Your task to perform on an android device: Find coffee shops on Maps Image 0: 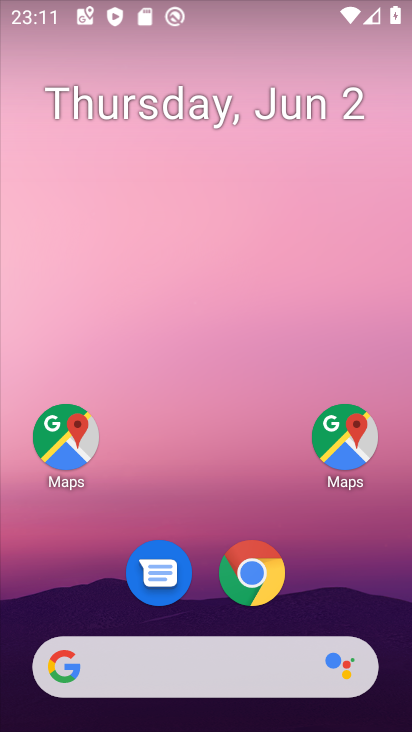
Step 0: click (336, 452)
Your task to perform on an android device: Find coffee shops on Maps Image 1: 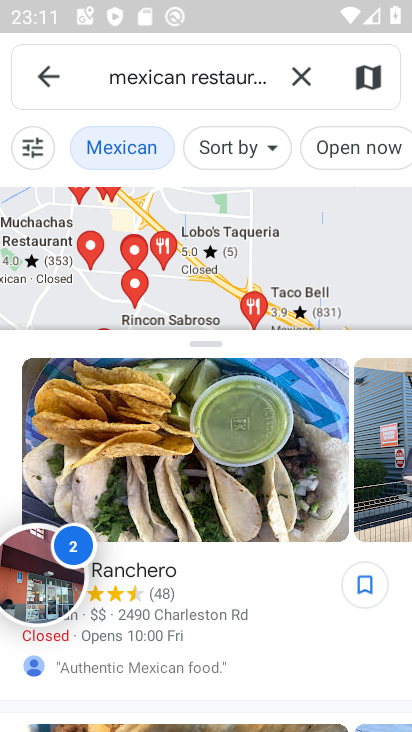
Step 1: click (303, 74)
Your task to perform on an android device: Find coffee shops on Maps Image 2: 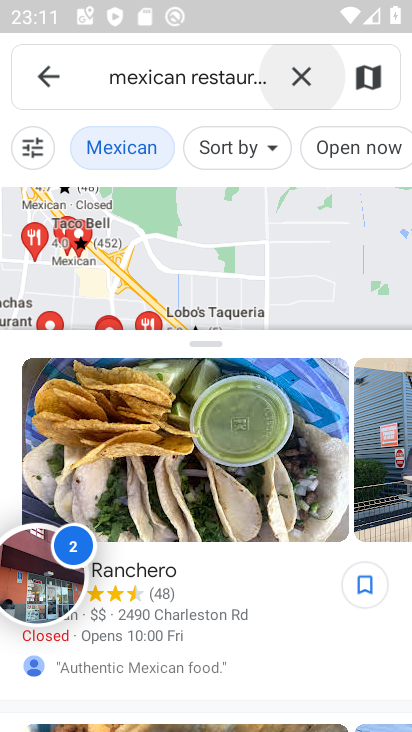
Step 2: click (303, 74)
Your task to perform on an android device: Find coffee shops on Maps Image 3: 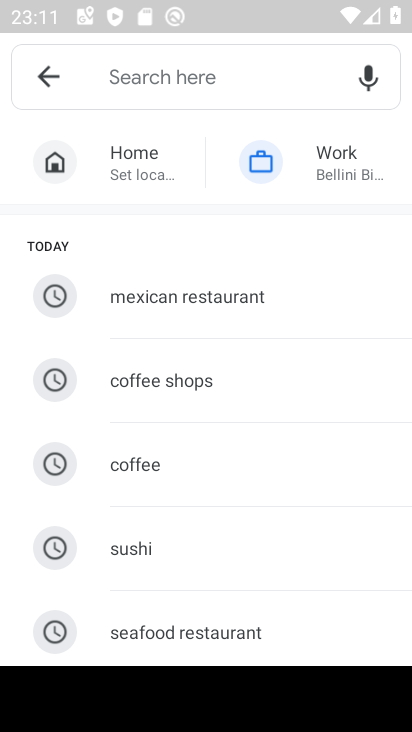
Step 3: click (174, 381)
Your task to perform on an android device: Find coffee shops on Maps Image 4: 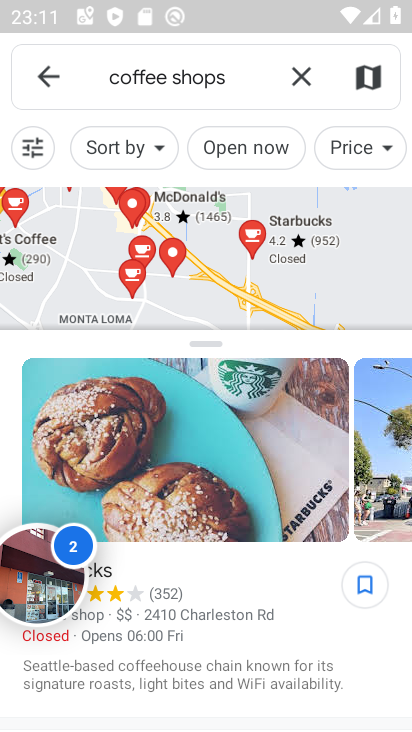
Step 4: task complete